Your task to perform on an android device: search for starred emails in the gmail app Image 0: 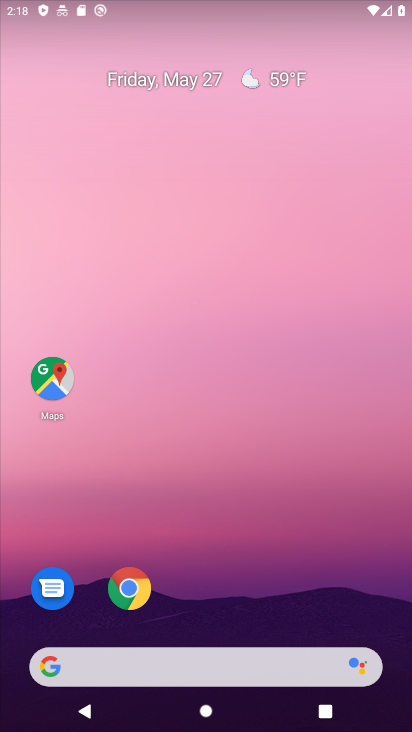
Step 0: press back button
Your task to perform on an android device: search for starred emails in the gmail app Image 1: 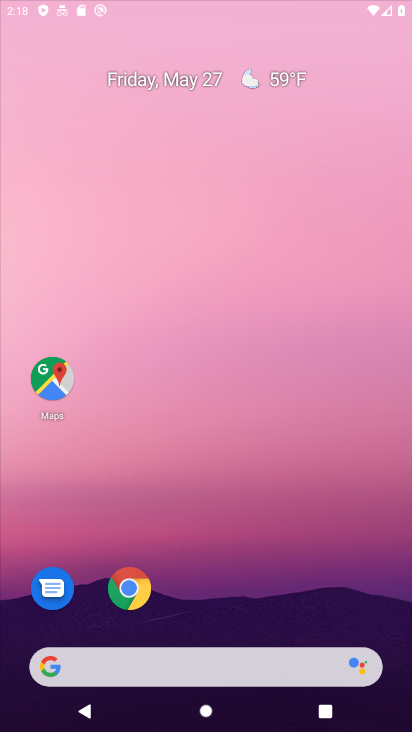
Step 1: drag from (213, 549) to (141, 133)
Your task to perform on an android device: search for starred emails in the gmail app Image 2: 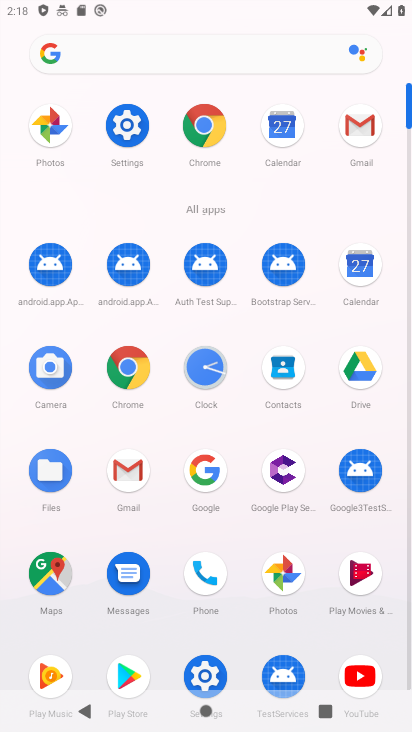
Step 2: click (128, 467)
Your task to perform on an android device: search for starred emails in the gmail app Image 3: 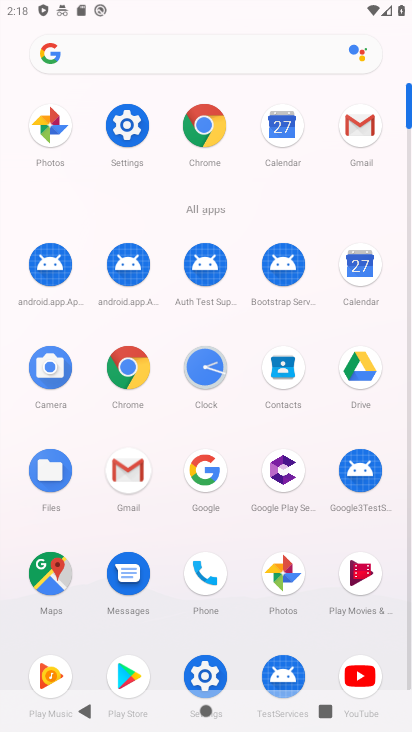
Step 3: click (128, 467)
Your task to perform on an android device: search for starred emails in the gmail app Image 4: 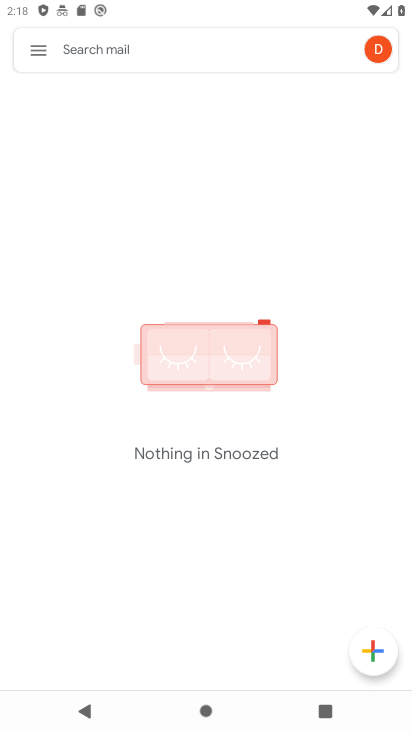
Step 4: click (129, 468)
Your task to perform on an android device: search for starred emails in the gmail app Image 5: 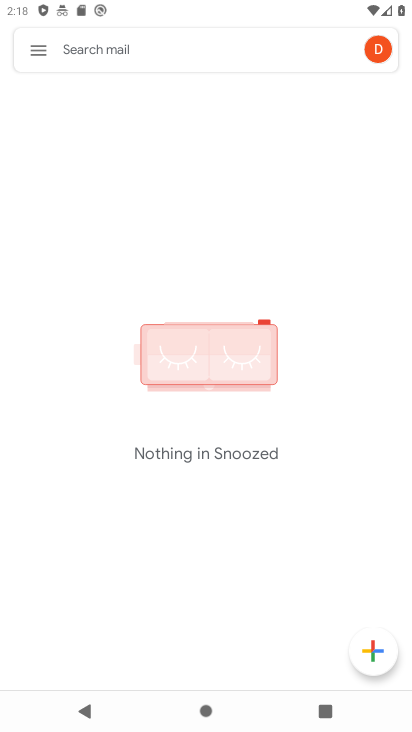
Step 5: click (129, 468)
Your task to perform on an android device: search for starred emails in the gmail app Image 6: 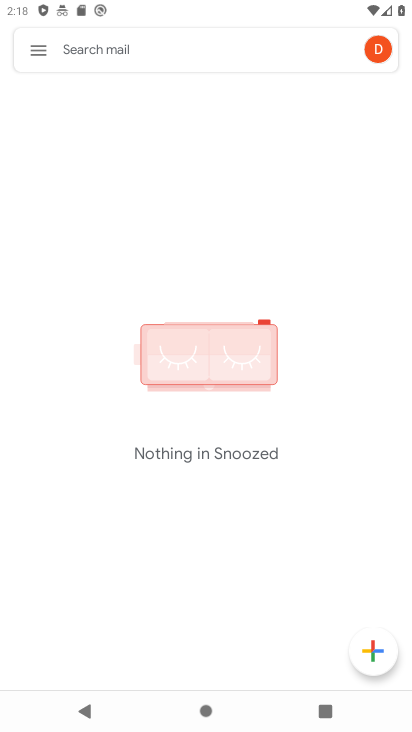
Step 6: click (129, 468)
Your task to perform on an android device: search for starred emails in the gmail app Image 7: 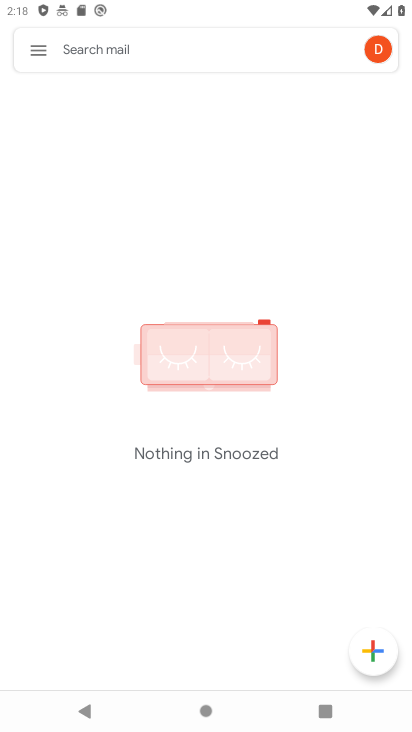
Step 7: click (42, 53)
Your task to perform on an android device: search for starred emails in the gmail app Image 8: 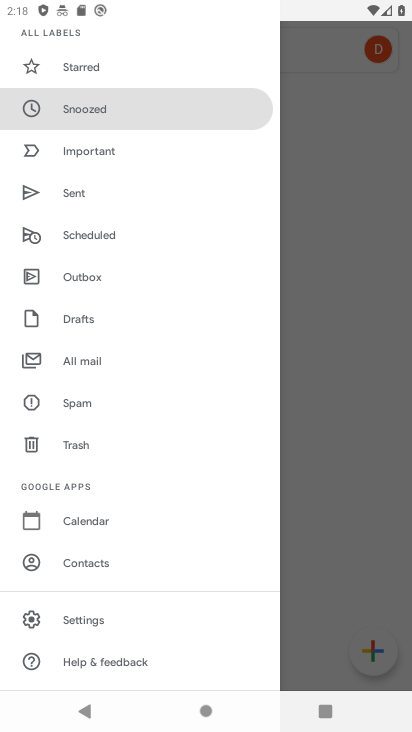
Step 8: click (77, 55)
Your task to perform on an android device: search for starred emails in the gmail app Image 9: 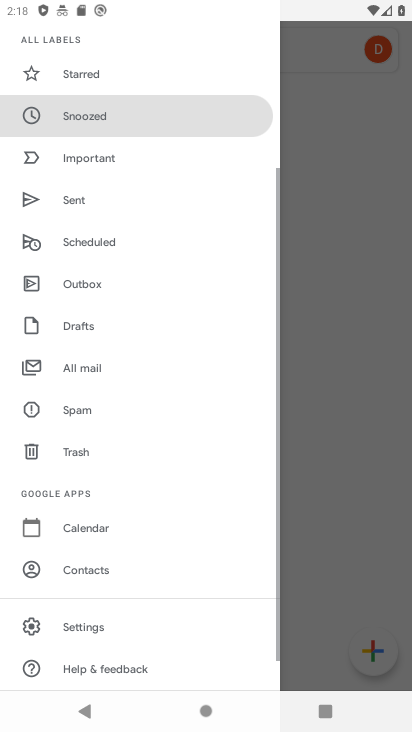
Step 9: click (80, 71)
Your task to perform on an android device: search for starred emails in the gmail app Image 10: 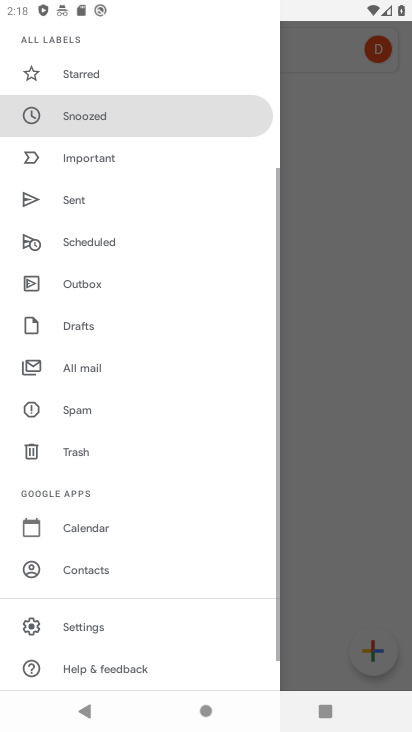
Step 10: click (80, 71)
Your task to perform on an android device: search for starred emails in the gmail app Image 11: 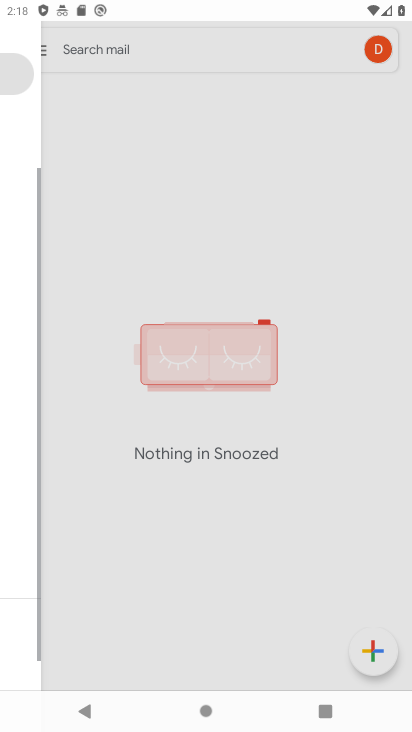
Step 11: click (80, 71)
Your task to perform on an android device: search for starred emails in the gmail app Image 12: 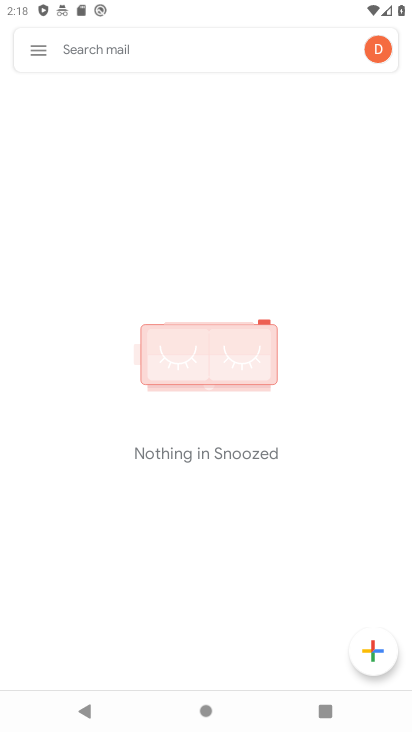
Step 12: click (80, 71)
Your task to perform on an android device: search for starred emails in the gmail app Image 13: 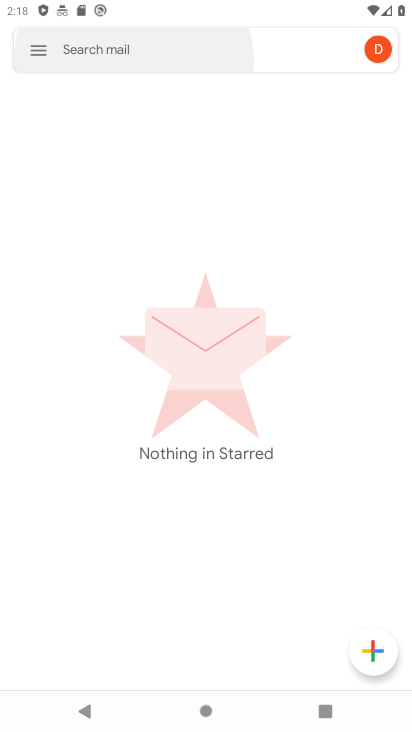
Step 13: click (80, 71)
Your task to perform on an android device: search for starred emails in the gmail app Image 14: 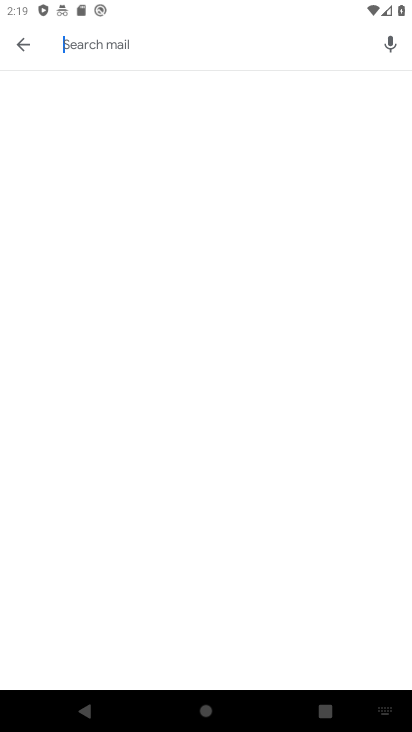
Step 14: click (28, 42)
Your task to perform on an android device: search for starred emails in the gmail app Image 15: 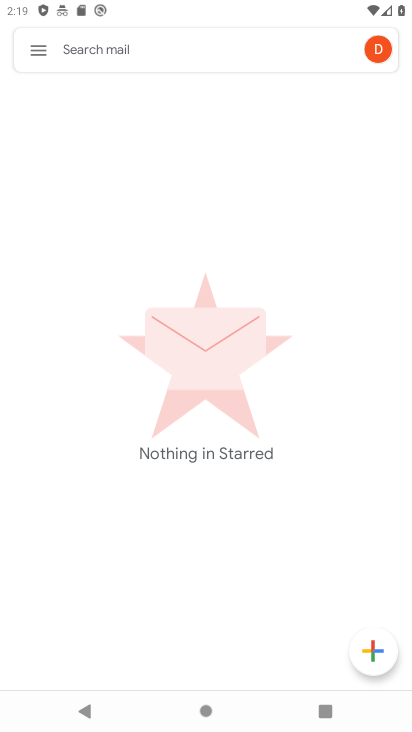
Step 15: click (39, 53)
Your task to perform on an android device: search for starred emails in the gmail app Image 16: 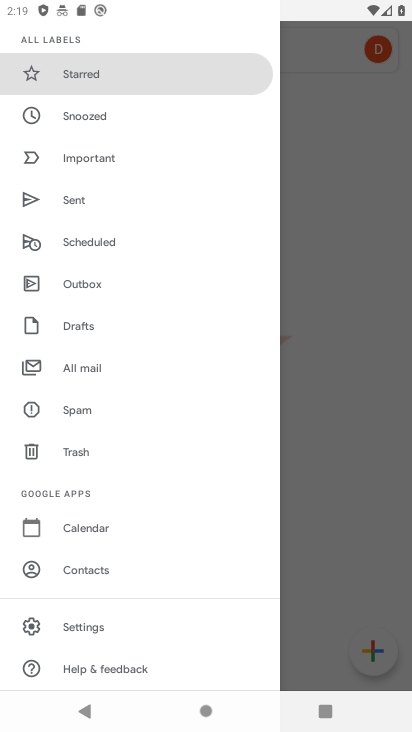
Step 16: click (89, 81)
Your task to perform on an android device: search for starred emails in the gmail app Image 17: 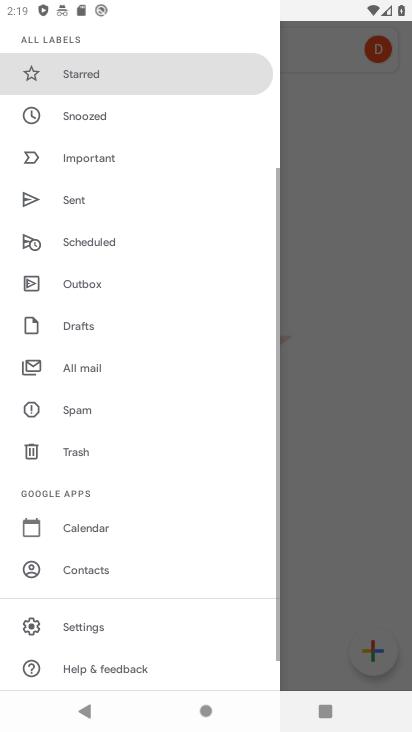
Step 17: click (89, 81)
Your task to perform on an android device: search for starred emails in the gmail app Image 18: 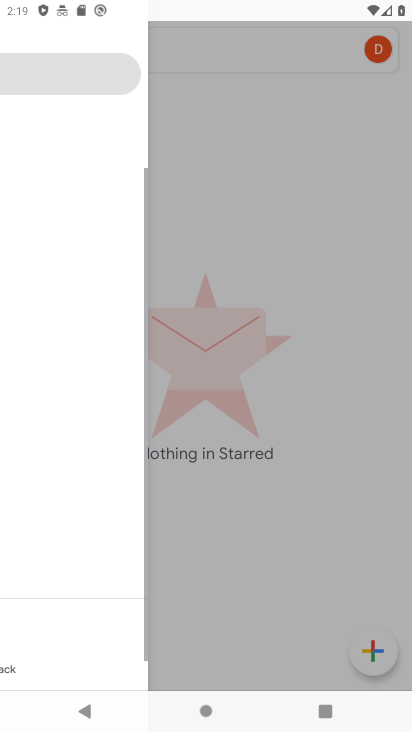
Step 18: click (89, 81)
Your task to perform on an android device: search for starred emails in the gmail app Image 19: 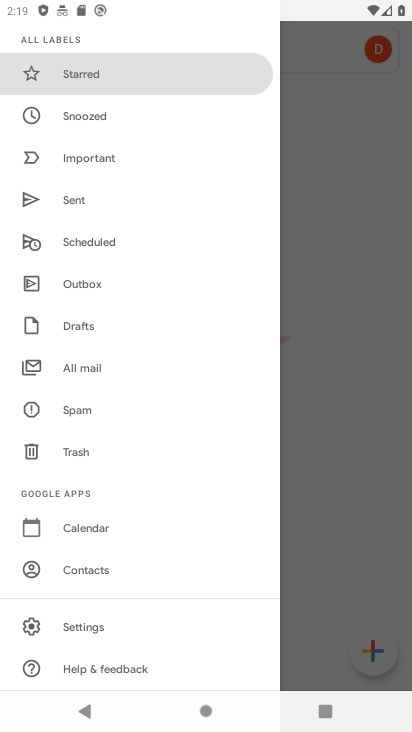
Step 19: click (89, 81)
Your task to perform on an android device: search for starred emails in the gmail app Image 20: 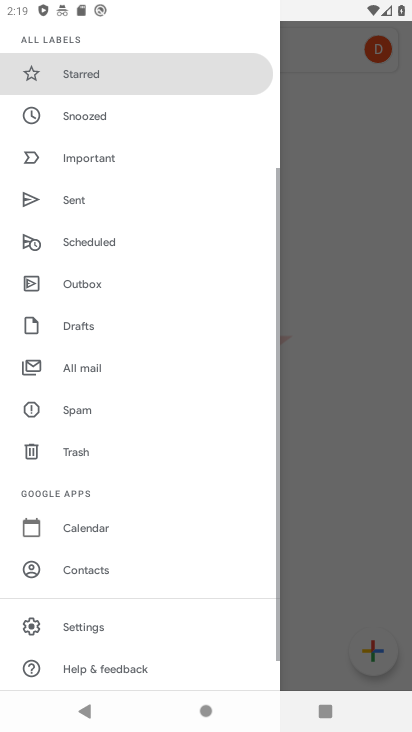
Step 20: click (89, 81)
Your task to perform on an android device: search for starred emails in the gmail app Image 21: 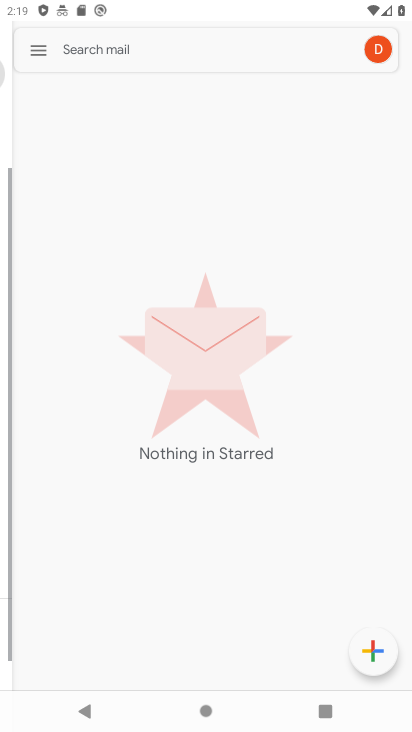
Step 21: click (89, 81)
Your task to perform on an android device: search for starred emails in the gmail app Image 22: 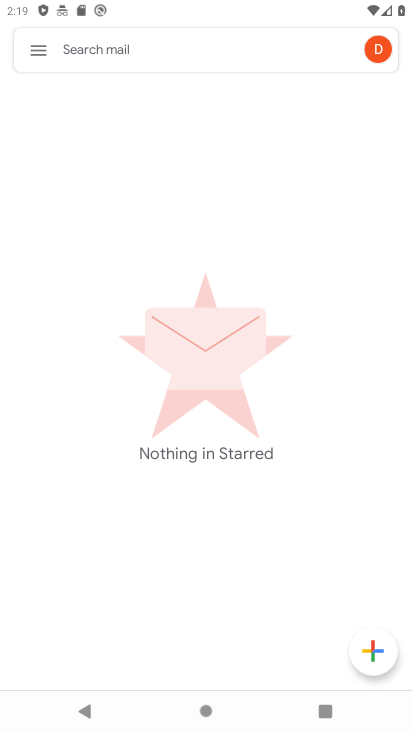
Step 22: task complete